Your task to perform on an android device: add a label to a message in the gmail app Image 0: 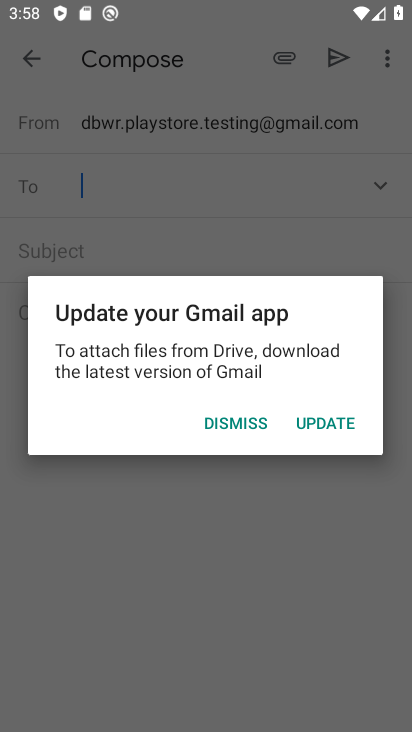
Step 0: press home button
Your task to perform on an android device: add a label to a message in the gmail app Image 1: 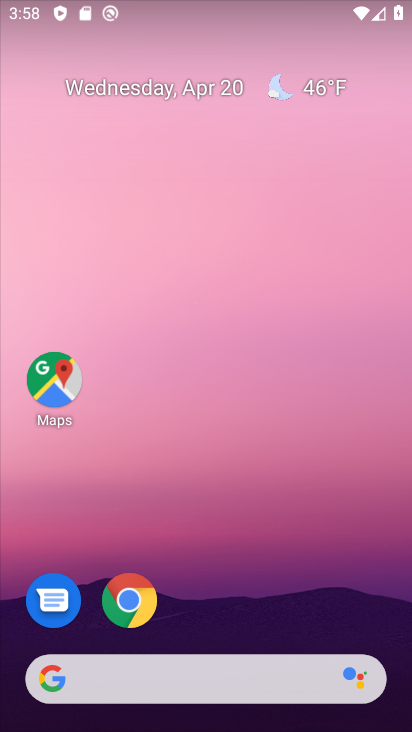
Step 1: drag from (213, 581) to (240, 140)
Your task to perform on an android device: add a label to a message in the gmail app Image 2: 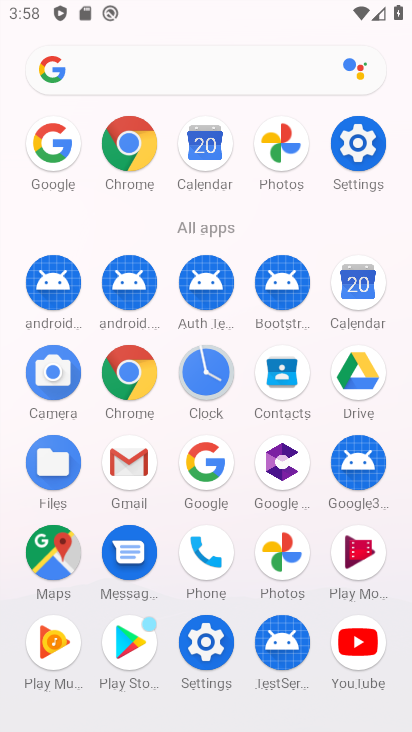
Step 2: click (127, 462)
Your task to perform on an android device: add a label to a message in the gmail app Image 3: 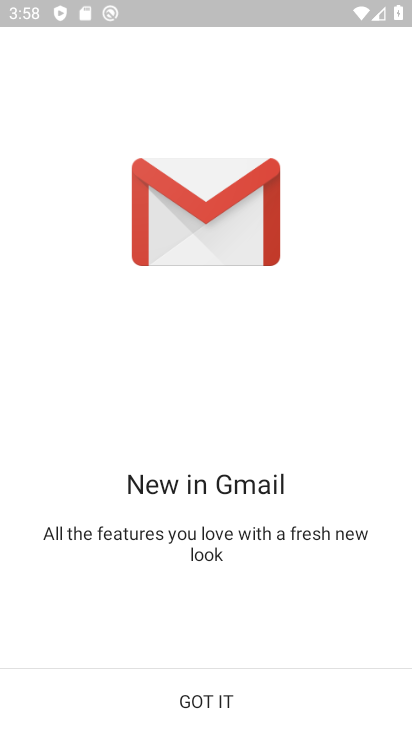
Step 3: click (195, 697)
Your task to perform on an android device: add a label to a message in the gmail app Image 4: 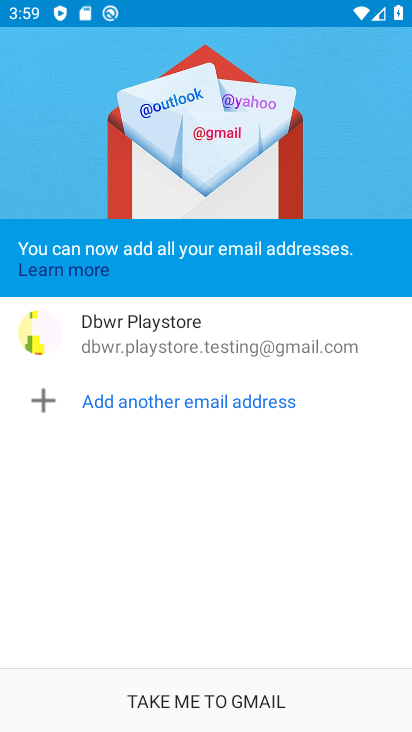
Step 4: click (227, 693)
Your task to perform on an android device: add a label to a message in the gmail app Image 5: 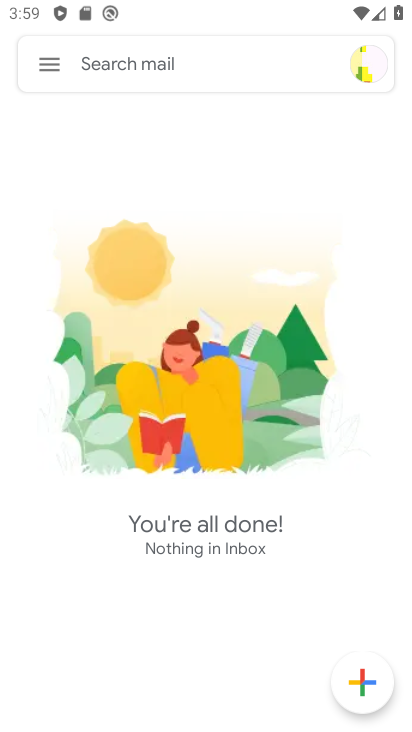
Step 5: click (43, 62)
Your task to perform on an android device: add a label to a message in the gmail app Image 6: 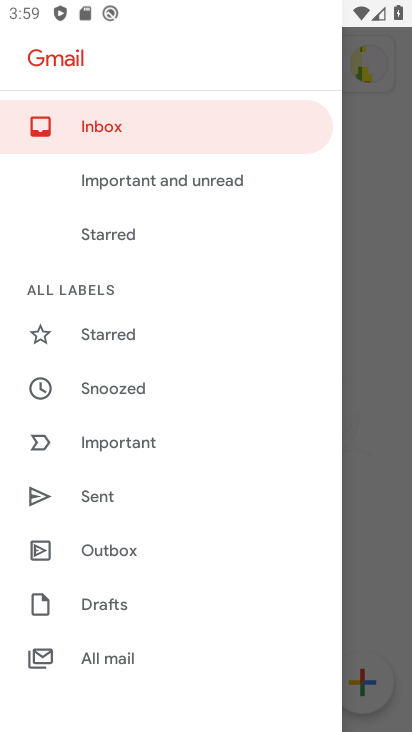
Step 6: click (127, 655)
Your task to perform on an android device: add a label to a message in the gmail app Image 7: 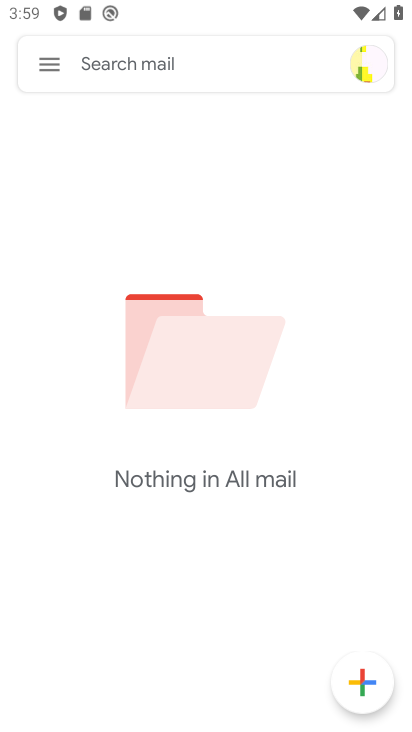
Step 7: task complete